Your task to perform on an android device: Check the weather Image 0: 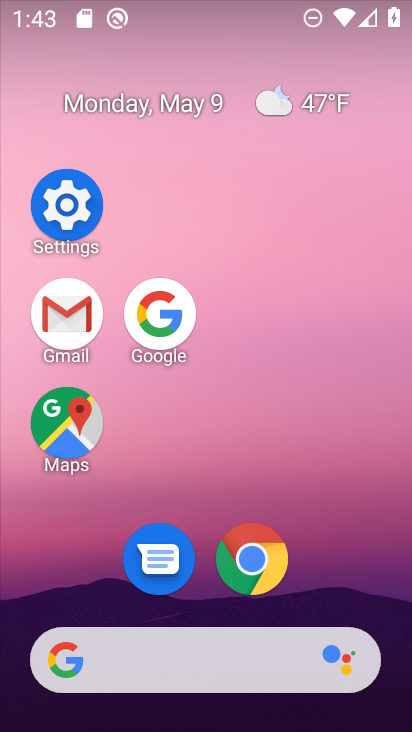
Step 0: click (178, 318)
Your task to perform on an android device: Check the weather Image 1: 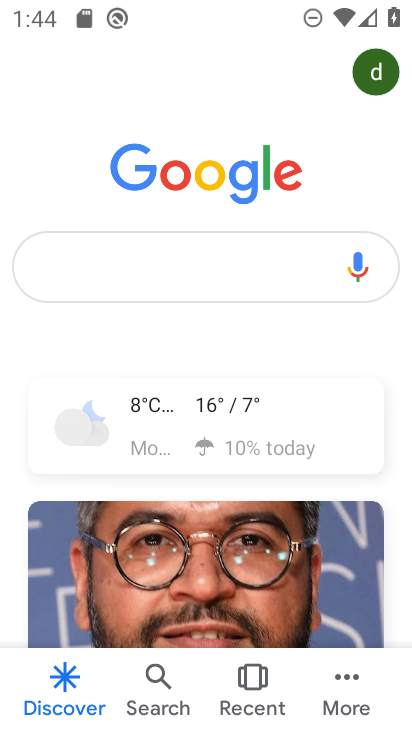
Step 1: click (175, 397)
Your task to perform on an android device: Check the weather Image 2: 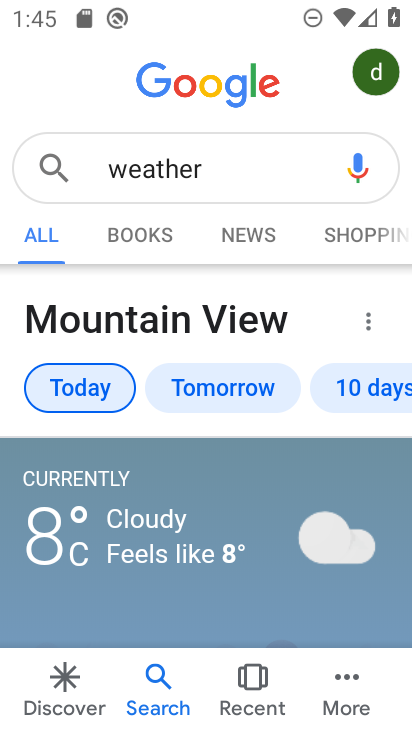
Step 2: task complete